Your task to perform on an android device: turn on priority inbox in the gmail app Image 0: 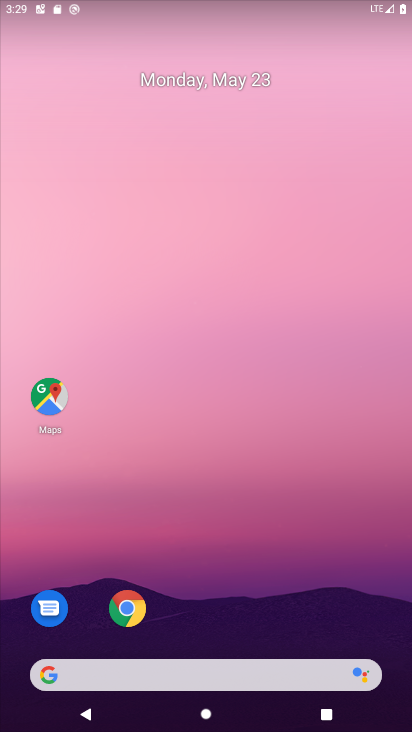
Step 0: drag from (236, 620) to (227, 192)
Your task to perform on an android device: turn on priority inbox in the gmail app Image 1: 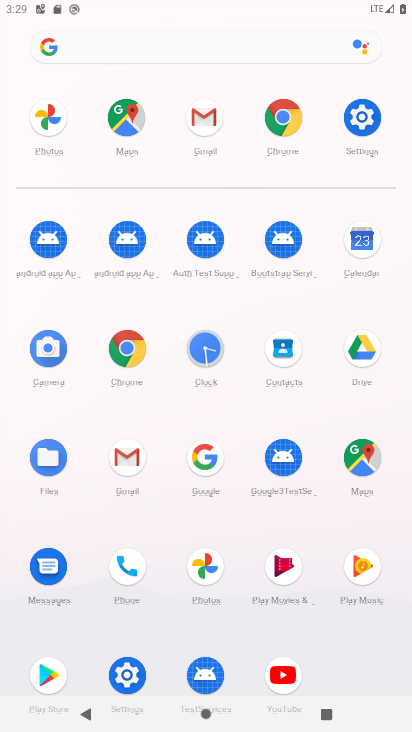
Step 1: click (205, 122)
Your task to perform on an android device: turn on priority inbox in the gmail app Image 2: 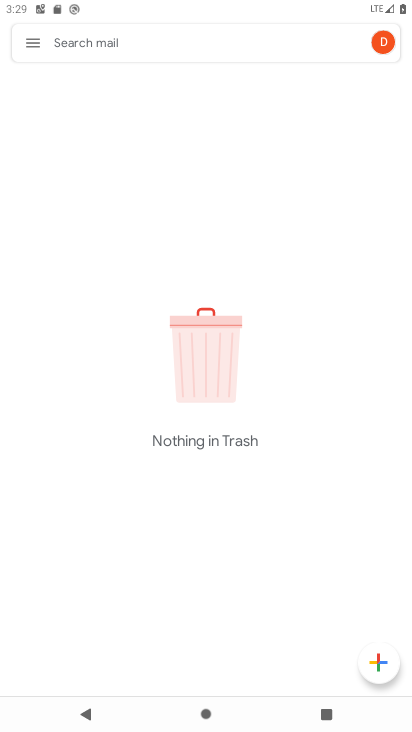
Step 2: click (24, 49)
Your task to perform on an android device: turn on priority inbox in the gmail app Image 3: 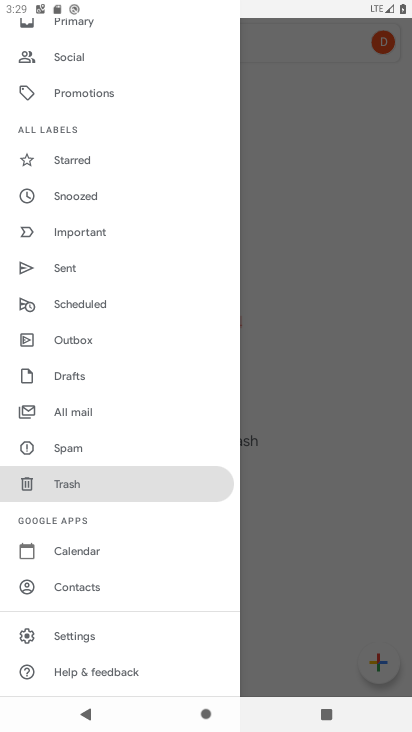
Step 3: click (136, 638)
Your task to perform on an android device: turn on priority inbox in the gmail app Image 4: 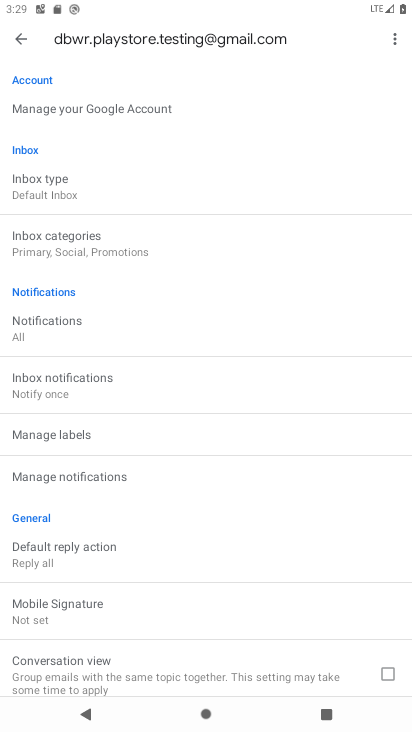
Step 4: click (123, 178)
Your task to perform on an android device: turn on priority inbox in the gmail app Image 5: 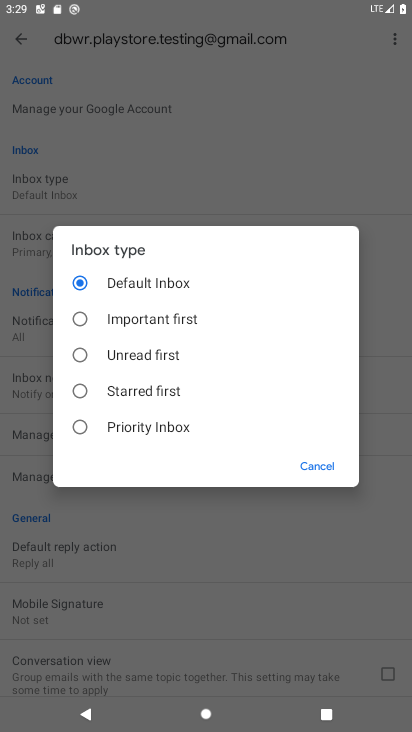
Step 5: click (161, 435)
Your task to perform on an android device: turn on priority inbox in the gmail app Image 6: 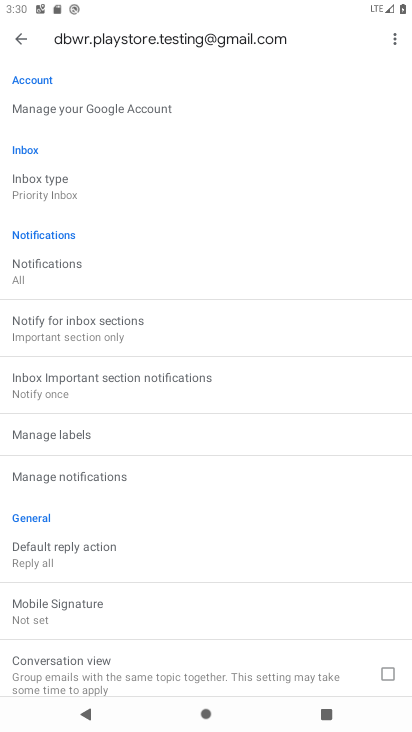
Step 6: task complete